Your task to perform on an android device: check storage Image 0: 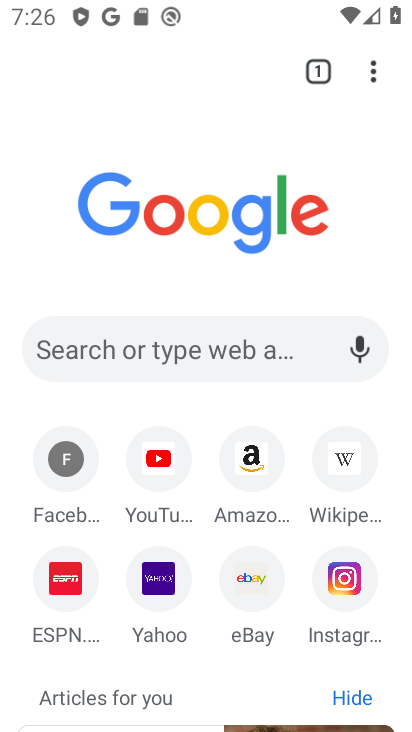
Step 0: press home button
Your task to perform on an android device: check storage Image 1: 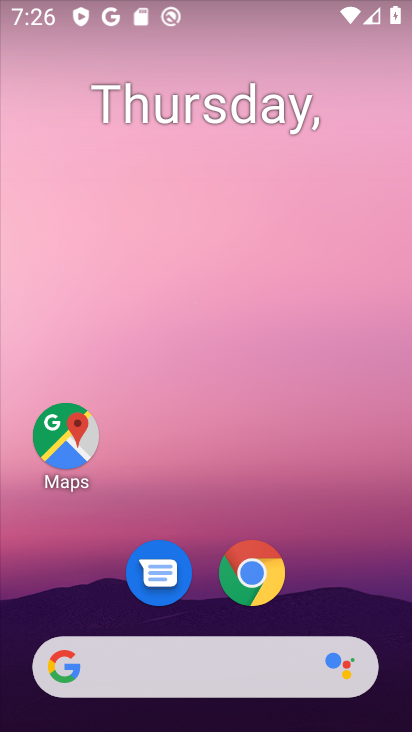
Step 1: drag from (378, 593) to (338, 209)
Your task to perform on an android device: check storage Image 2: 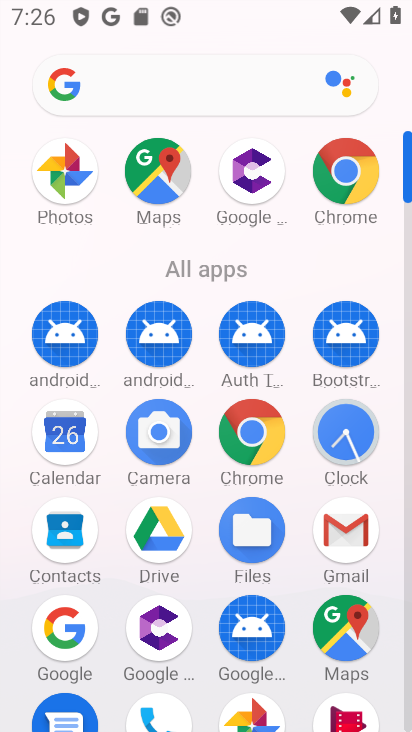
Step 2: drag from (190, 508) to (190, 243)
Your task to perform on an android device: check storage Image 3: 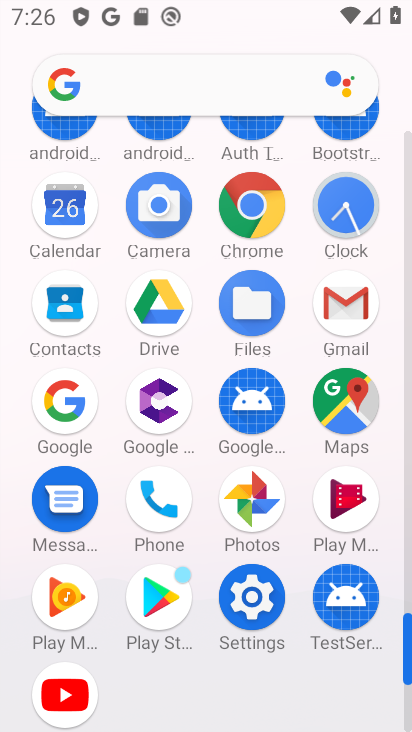
Step 3: click (253, 611)
Your task to perform on an android device: check storage Image 4: 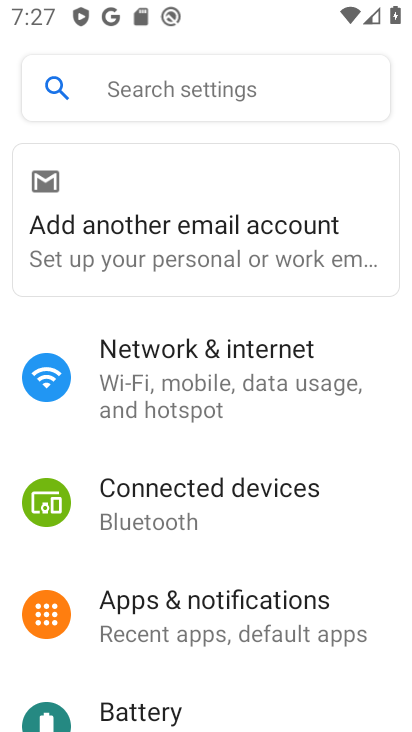
Step 4: drag from (255, 708) to (252, 348)
Your task to perform on an android device: check storage Image 5: 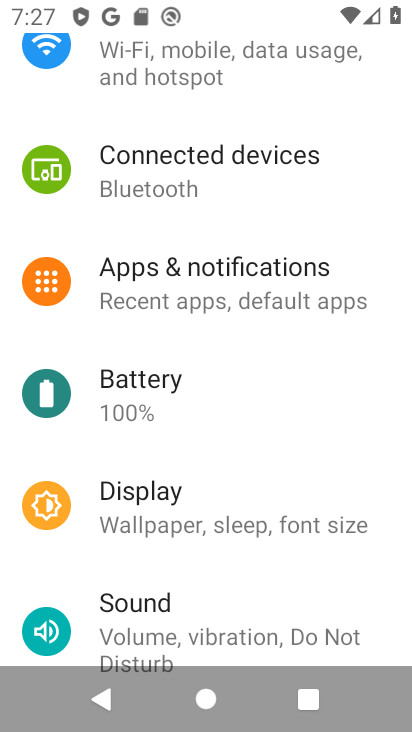
Step 5: drag from (215, 595) to (234, 262)
Your task to perform on an android device: check storage Image 6: 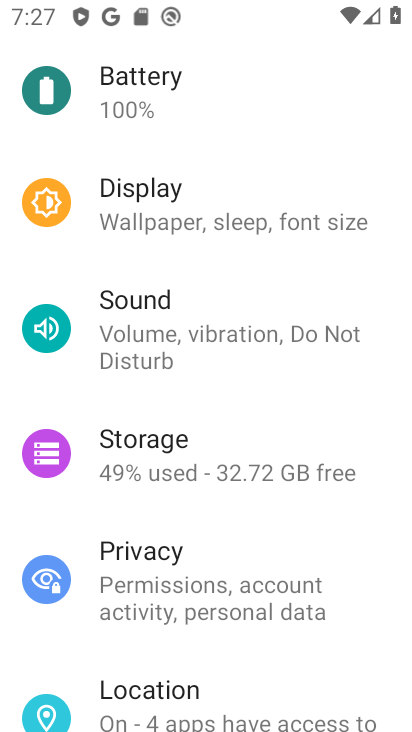
Step 6: click (192, 471)
Your task to perform on an android device: check storage Image 7: 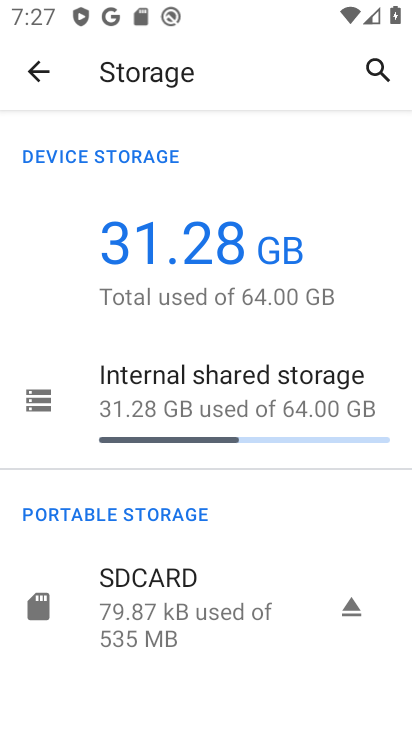
Step 7: click (27, 384)
Your task to perform on an android device: check storage Image 8: 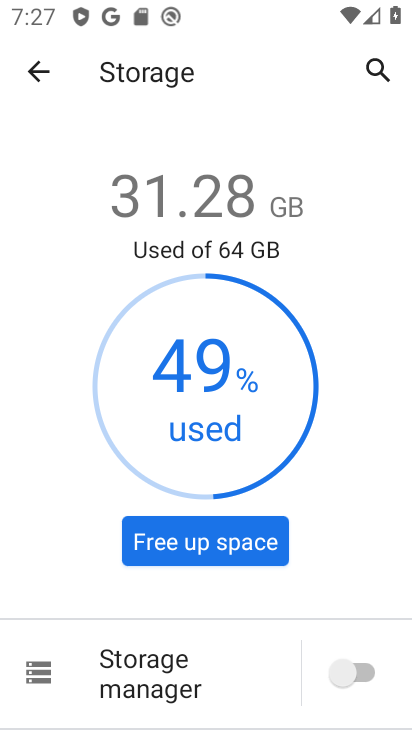
Step 8: task complete